Your task to perform on an android device: turn on wifi Image 0: 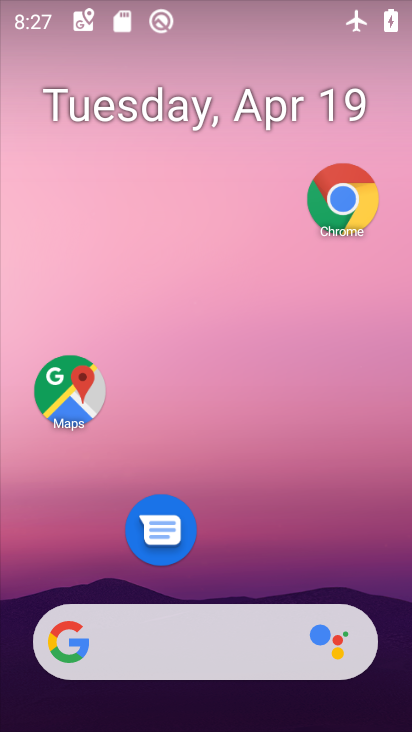
Step 0: click (220, 16)
Your task to perform on an android device: turn on wifi Image 1: 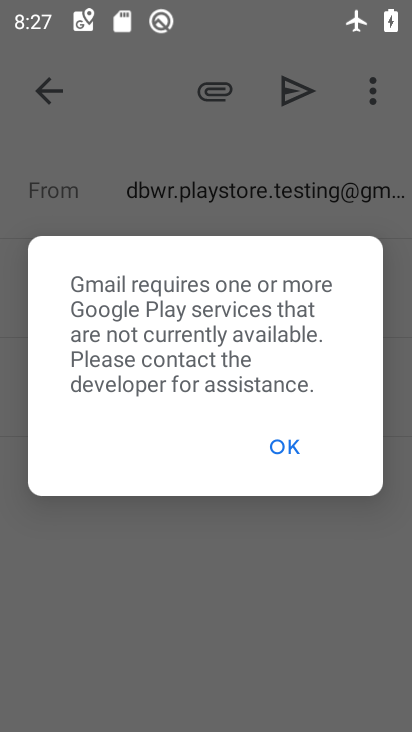
Step 1: press home button
Your task to perform on an android device: turn on wifi Image 2: 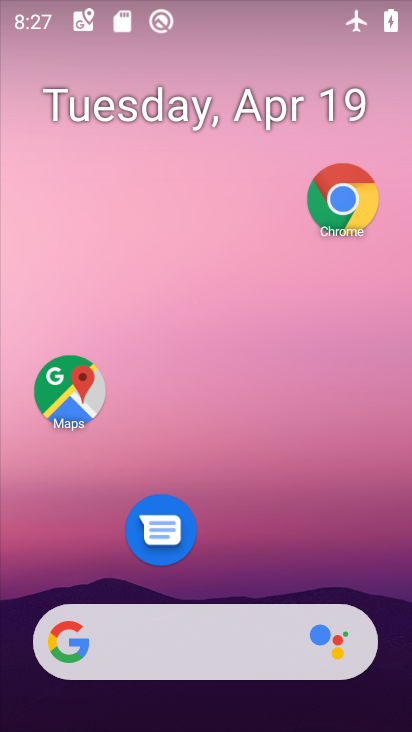
Step 2: drag from (217, 573) to (208, 48)
Your task to perform on an android device: turn on wifi Image 3: 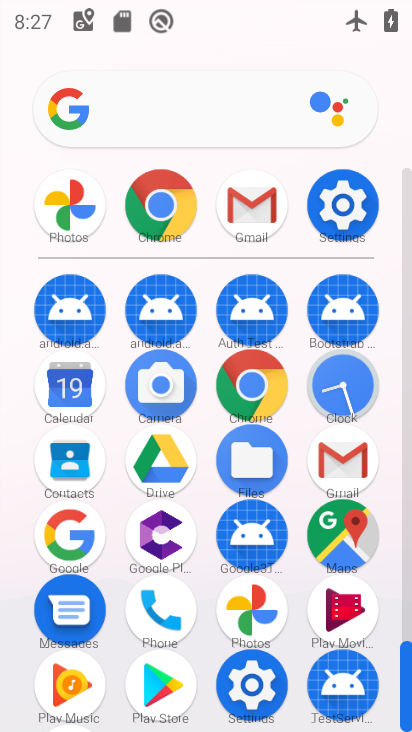
Step 3: click (344, 194)
Your task to perform on an android device: turn on wifi Image 4: 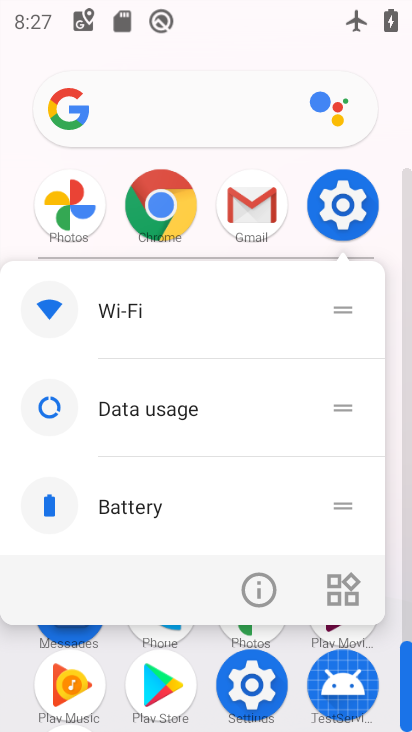
Step 4: click (133, 308)
Your task to perform on an android device: turn on wifi Image 5: 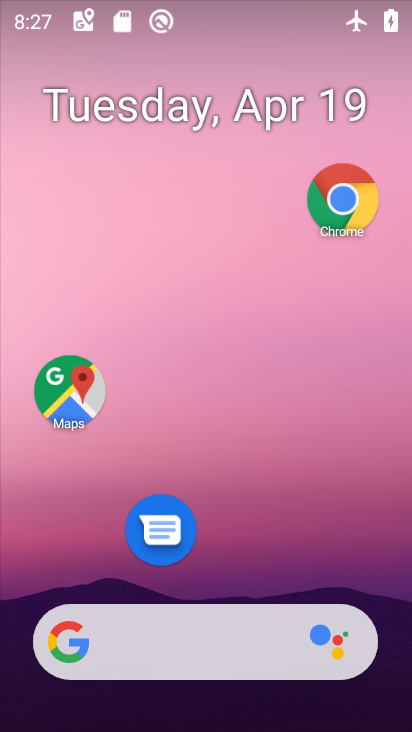
Step 5: drag from (214, 581) to (256, 53)
Your task to perform on an android device: turn on wifi Image 6: 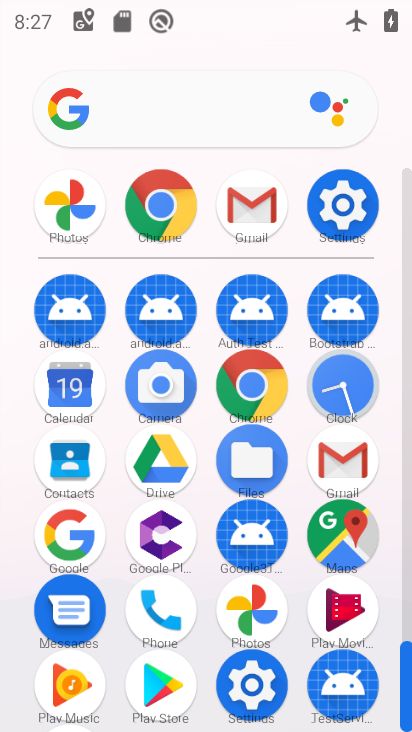
Step 6: click (339, 194)
Your task to perform on an android device: turn on wifi Image 7: 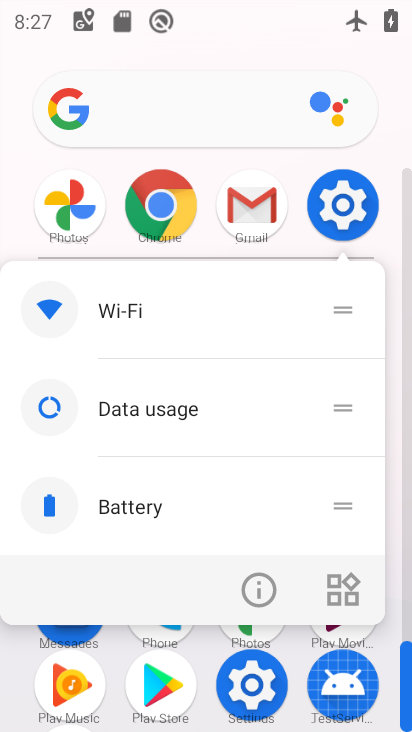
Step 7: click (251, 586)
Your task to perform on an android device: turn on wifi Image 8: 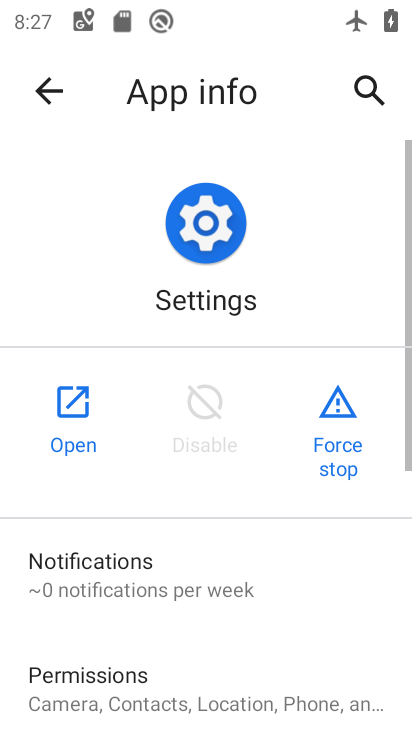
Step 8: click (66, 407)
Your task to perform on an android device: turn on wifi Image 9: 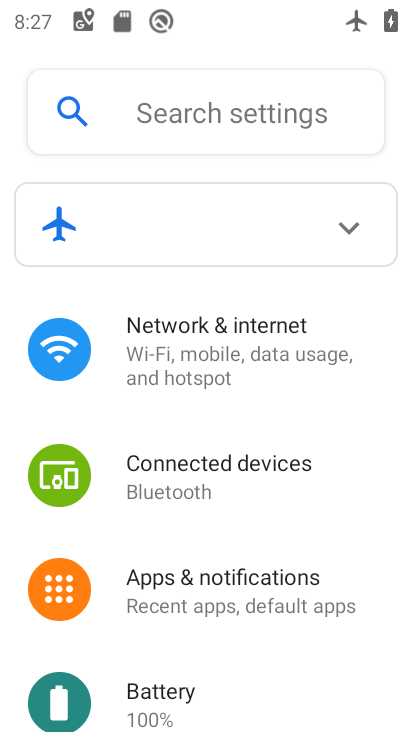
Step 9: click (233, 359)
Your task to perform on an android device: turn on wifi Image 10: 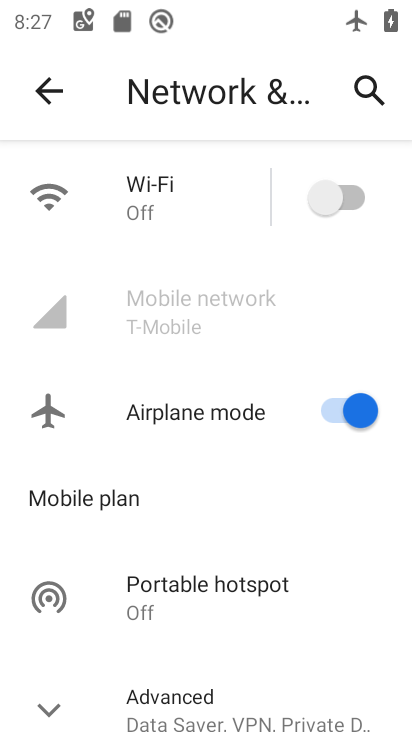
Step 10: click (349, 186)
Your task to perform on an android device: turn on wifi Image 11: 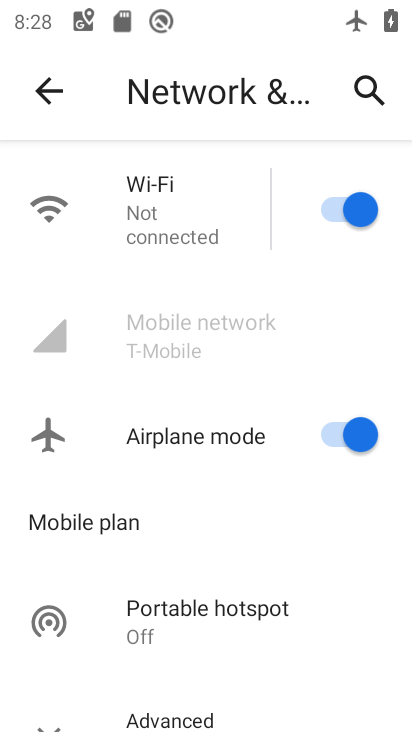
Step 11: click (213, 195)
Your task to perform on an android device: turn on wifi Image 12: 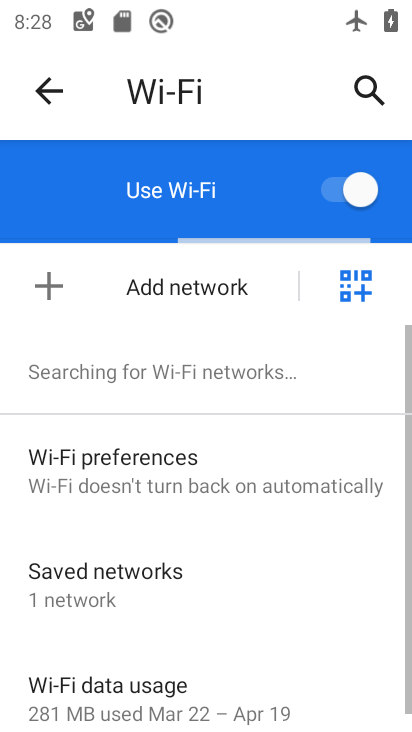
Step 12: task complete